Your task to perform on an android device: Open the calendar and show me this week's events Image 0: 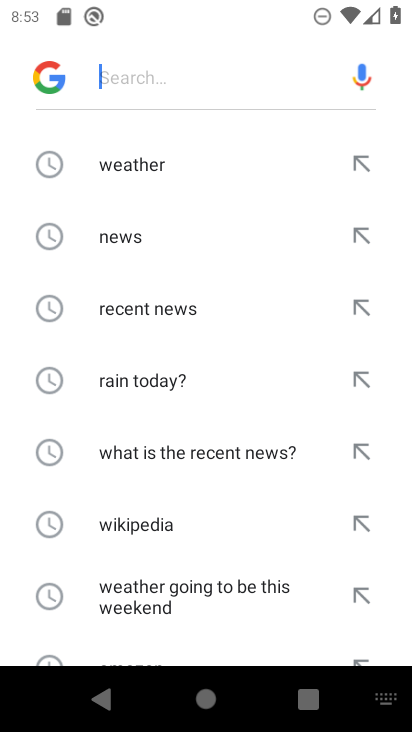
Step 0: press home button
Your task to perform on an android device: Open the calendar and show me this week's events Image 1: 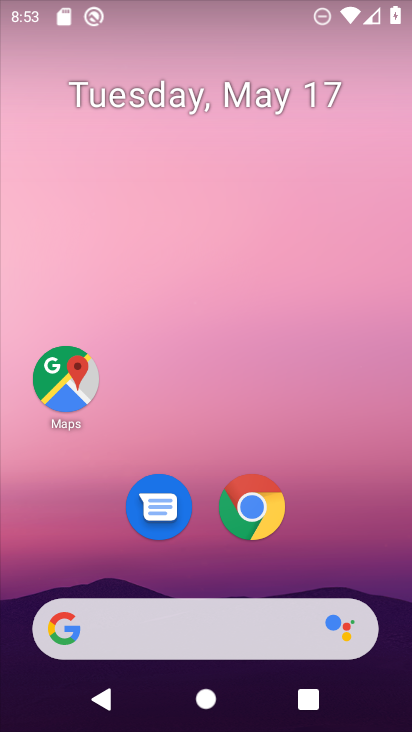
Step 1: drag from (353, 543) to (294, 20)
Your task to perform on an android device: Open the calendar and show me this week's events Image 2: 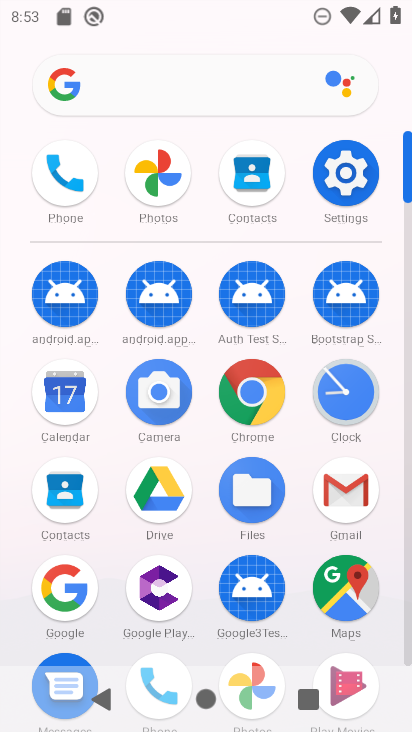
Step 2: click (66, 408)
Your task to perform on an android device: Open the calendar and show me this week's events Image 3: 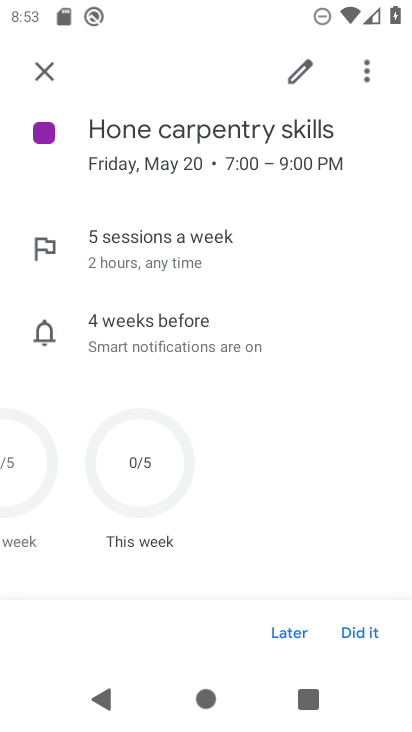
Step 3: click (34, 67)
Your task to perform on an android device: Open the calendar and show me this week's events Image 4: 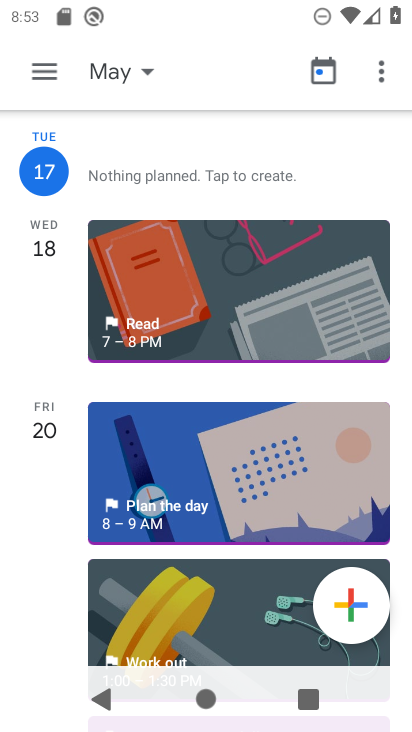
Step 4: click (46, 83)
Your task to perform on an android device: Open the calendar and show me this week's events Image 5: 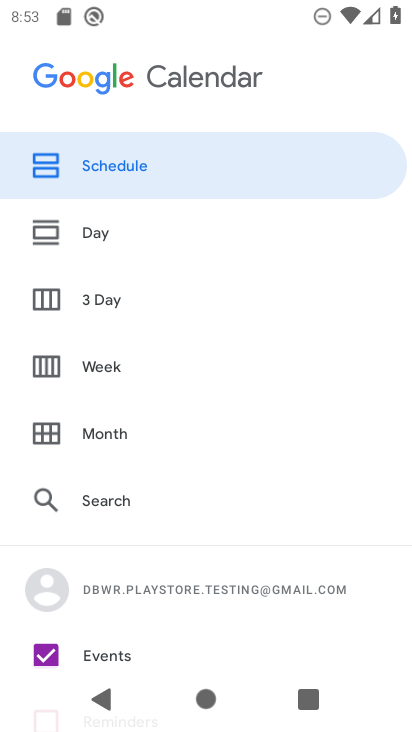
Step 5: click (91, 367)
Your task to perform on an android device: Open the calendar and show me this week's events Image 6: 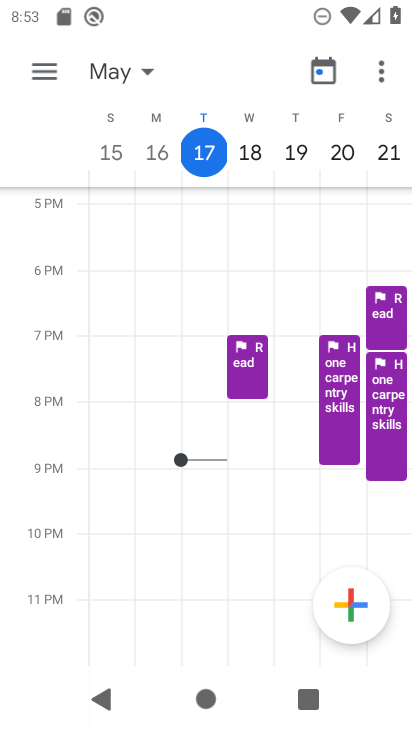
Step 6: task complete